Your task to perform on an android device: Open battery settings Image 0: 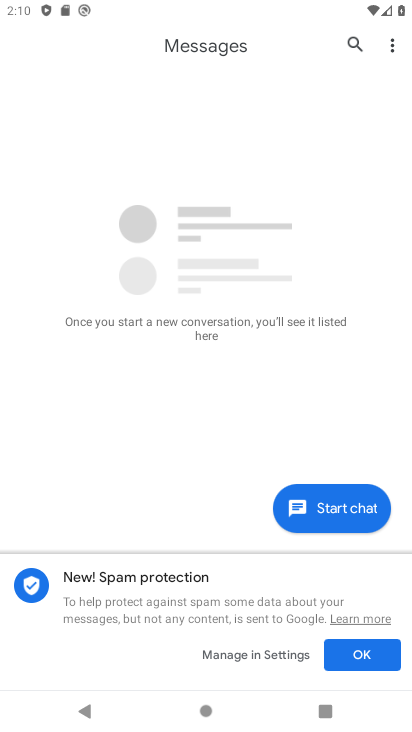
Step 0: press home button
Your task to perform on an android device: Open battery settings Image 1: 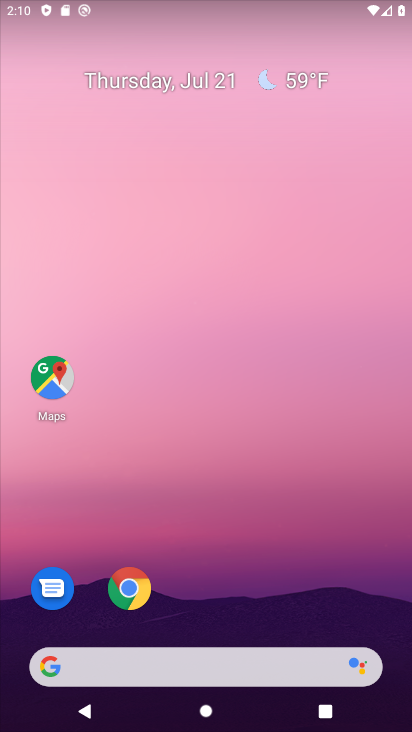
Step 1: drag from (396, 717) to (344, 69)
Your task to perform on an android device: Open battery settings Image 2: 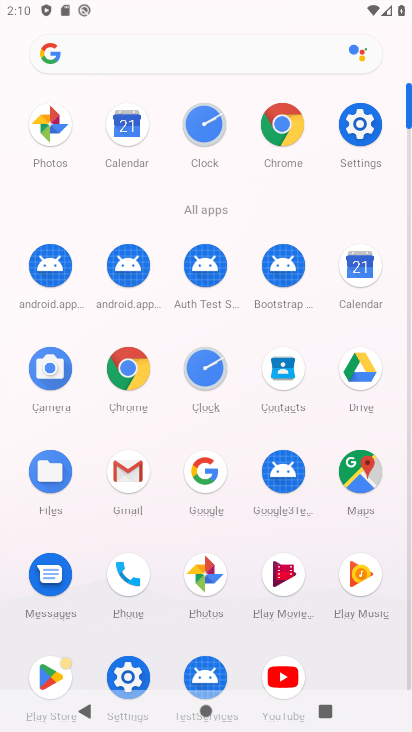
Step 2: click (353, 127)
Your task to perform on an android device: Open battery settings Image 3: 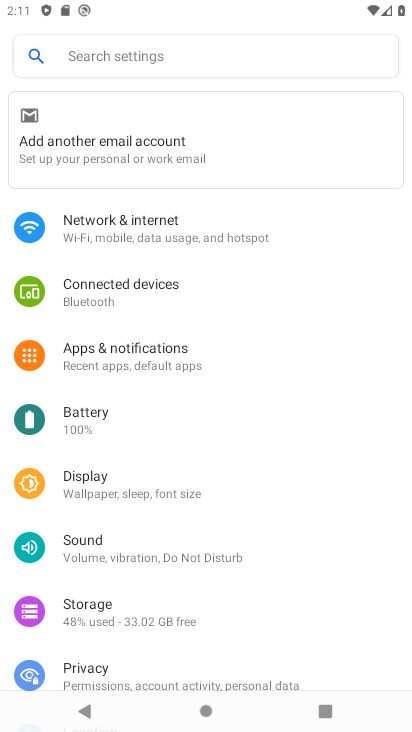
Step 3: click (84, 422)
Your task to perform on an android device: Open battery settings Image 4: 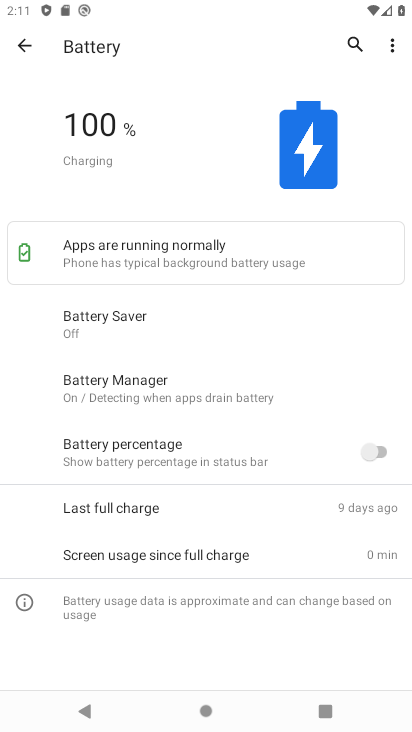
Step 4: task complete